Your task to perform on an android device: Go to ESPN.com Image 0: 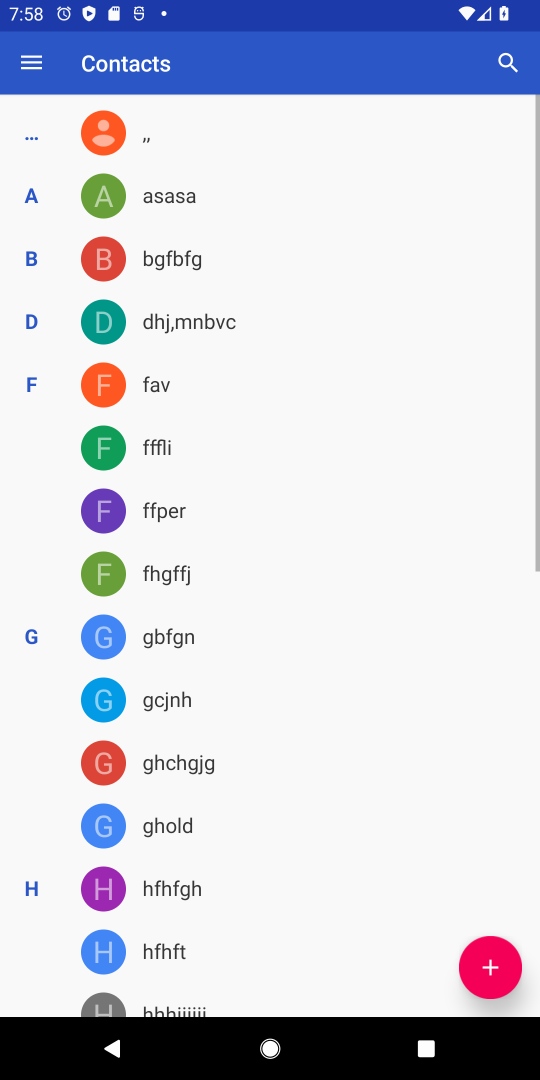
Step 0: press back button
Your task to perform on an android device: Go to ESPN.com Image 1: 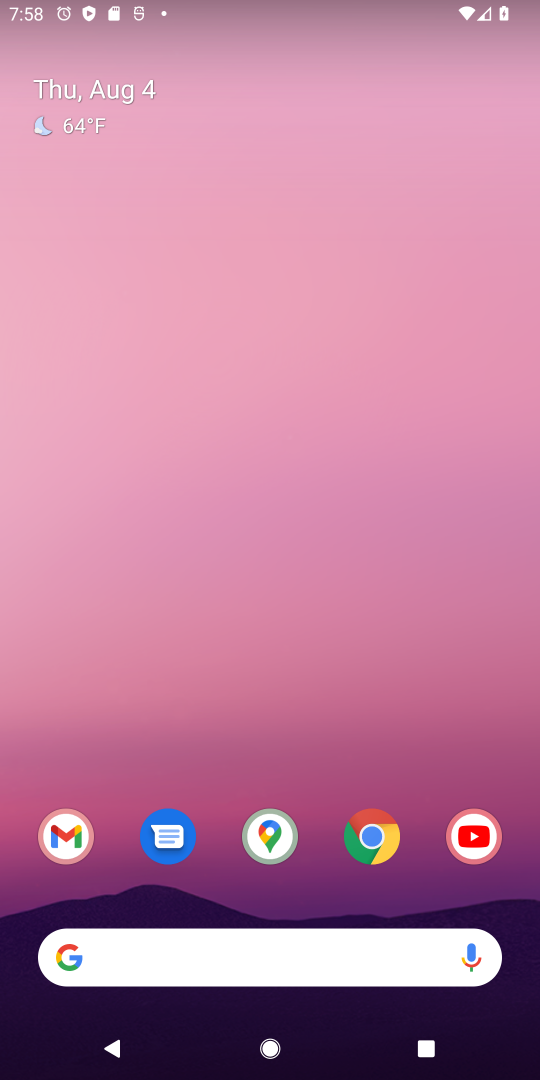
Step 1: click (373, 837)
Your task to perform on an android device: Go to ESPN.com Image 2: 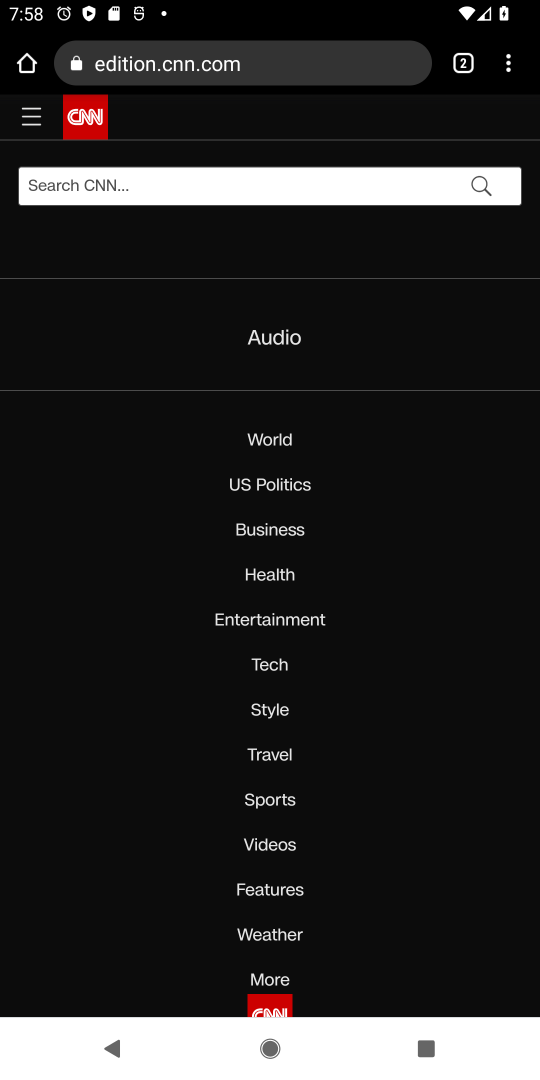
Step 2: click (465, 61)
Your task to perform on an android device: Go to ESPN.com Image 3: 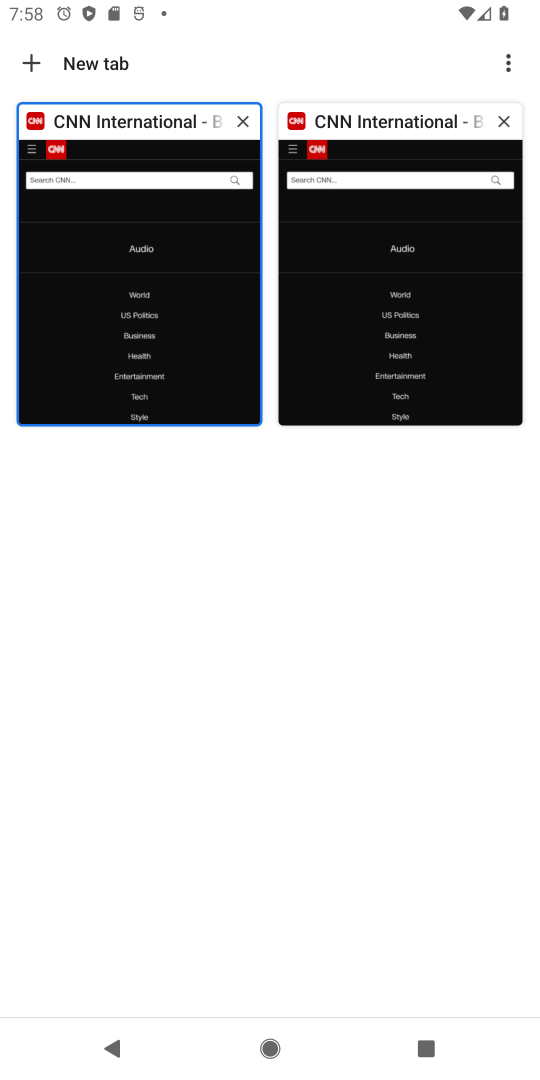
Step 3: click (27, 52)
Your task to perform on an android device: Go to ESPN.com Image 4: 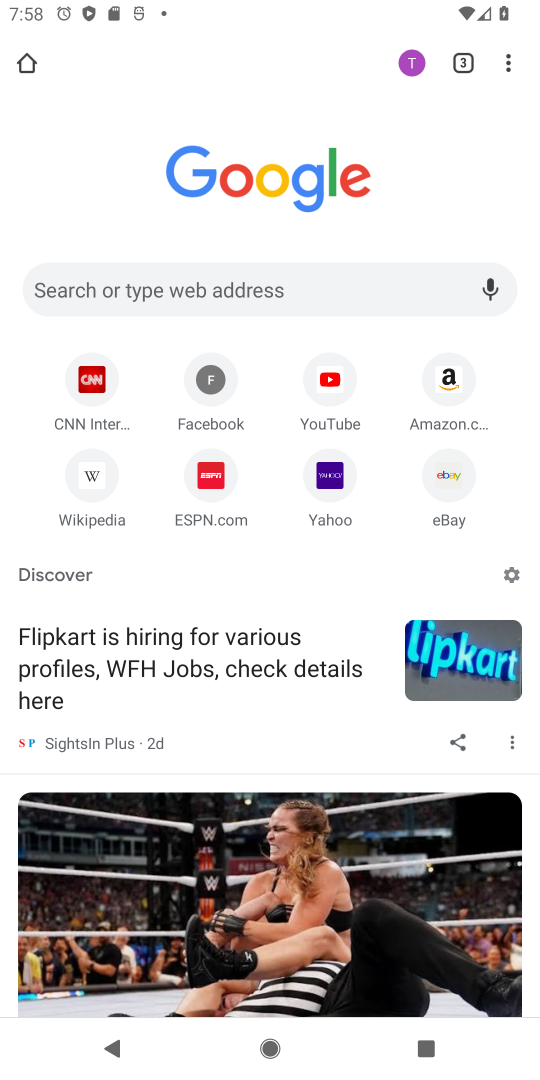
Step 4: click (204, 483)
Your task to perform on an android device: Go to ESPN.com Image 5: 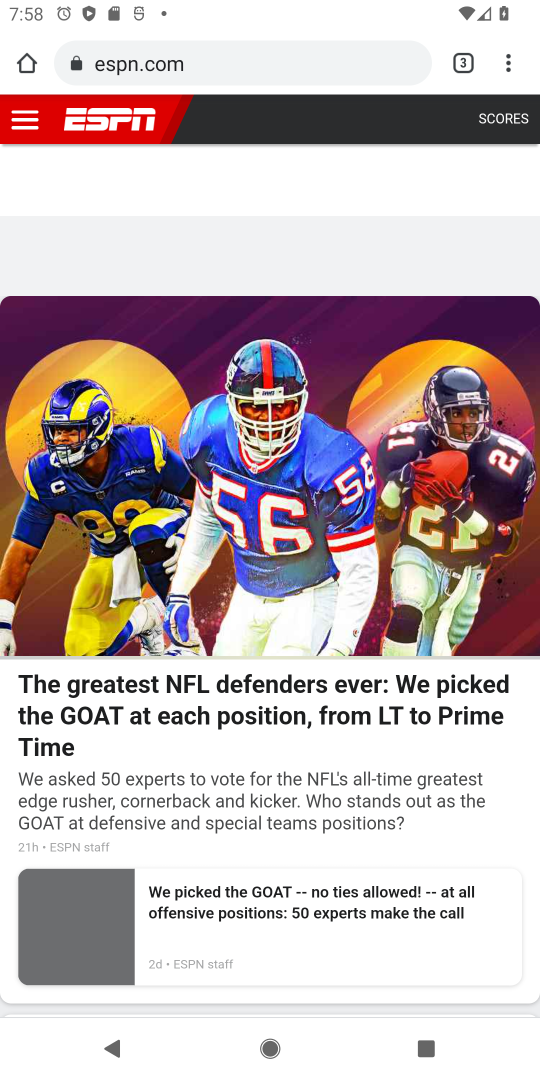
Step 5: task complete